Your task to perform on an android device: delete a single message in the gmail app Image 0: 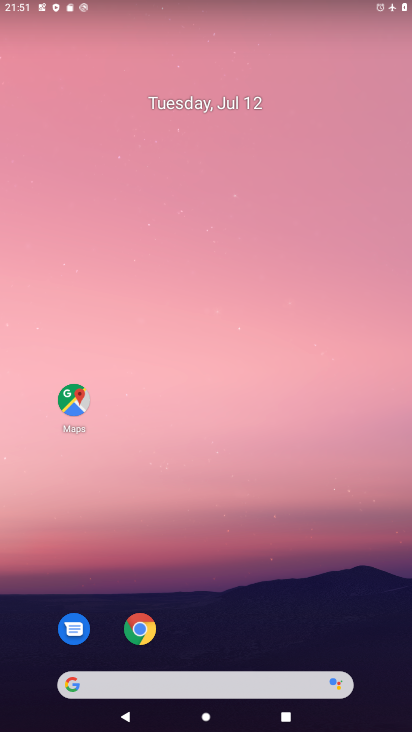
Step 0: drag from (249, 639) to (248, 276)
Your task to perform on an android device: delete a single message in the gmail app Image 1: 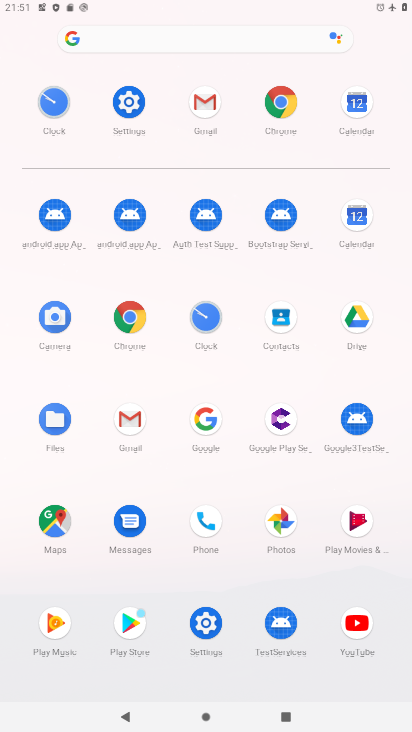
Step 1: click (212, 97)
Your task to perform on an android device: delete a single message in the gmail app Image 2: 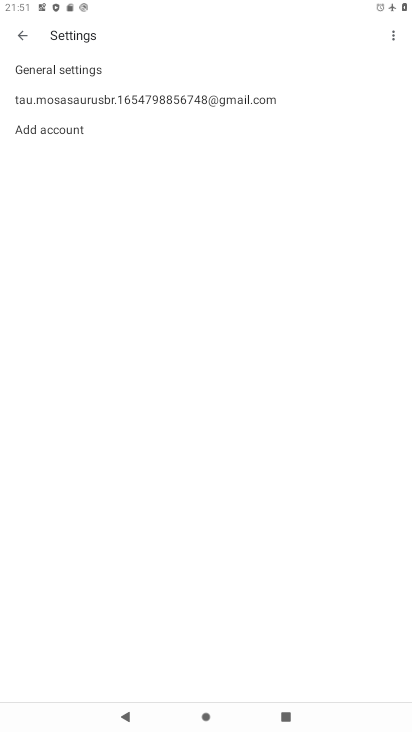
Step 2: click (8, 33)
Your task to perform on an android device: delete a single message in the gmail app Image 3: 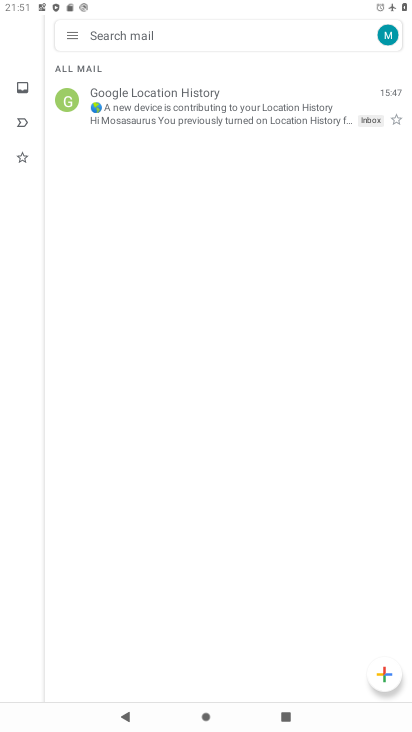
Step 3: click (140, 106)
Your task to perform on an android device: delete a single message in the gmail app Image 4: 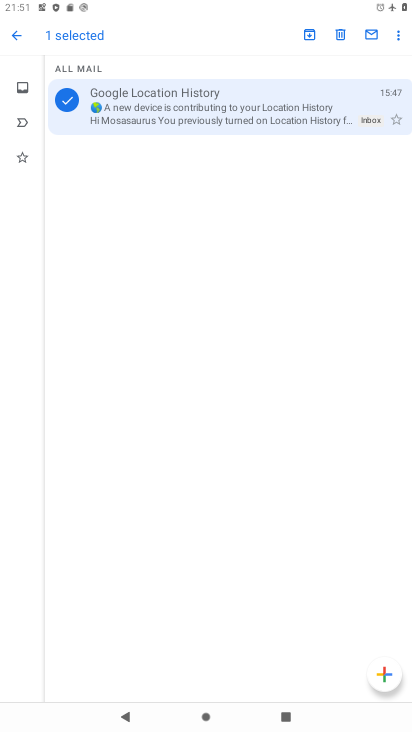
Step 4: click (342, 35)
Your task to perform on an android device: delete a single message in the gmail app Image 5: 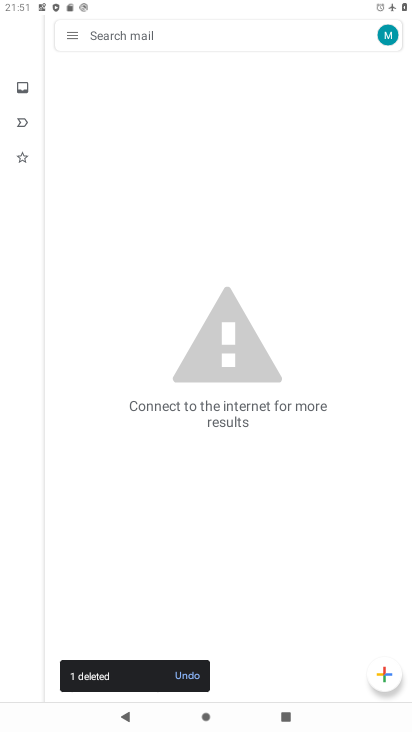
Step 5: task complete